Your task to perform on an android device: turn on the 12-hour format for clock Image 0: 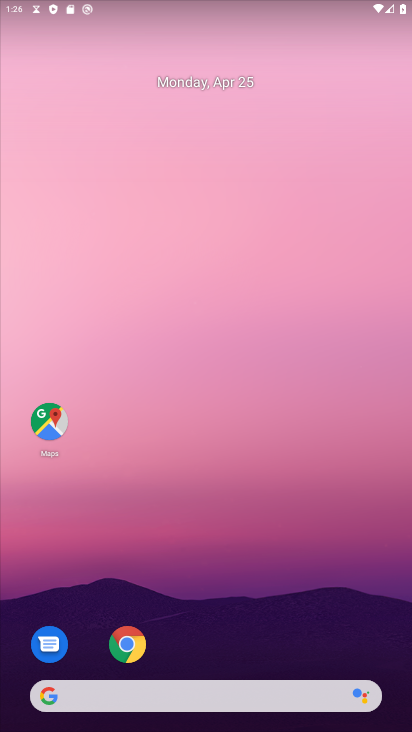
Step 0: drag from (346, 607) to (340, 32)
Your task to perform on an android device: turn on the 12-hour format for clock Image 1: 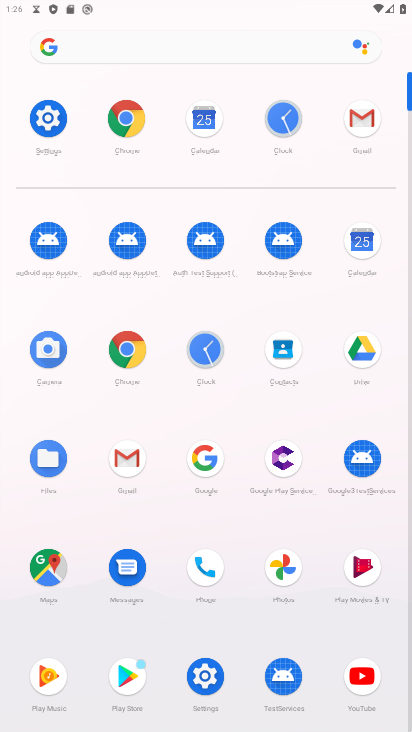
Step 1: click (278, 121)
Your task to perform on an android device: turn on the 12-hour format for clock Image 2: 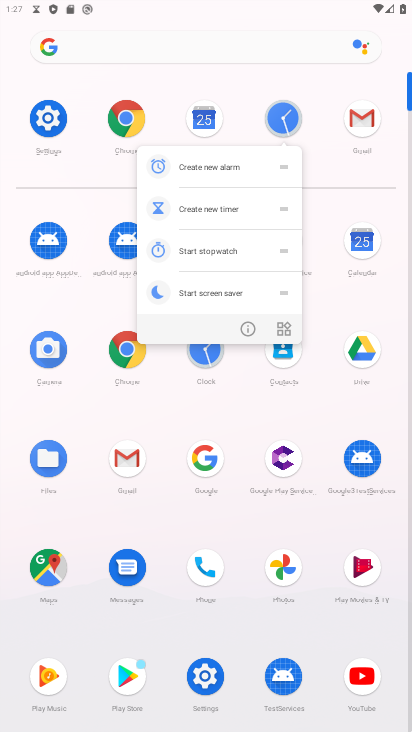
Step 2: click (275, 122)
Your task to perform on an android device: turn on the 12-hour format for clock Image 3: 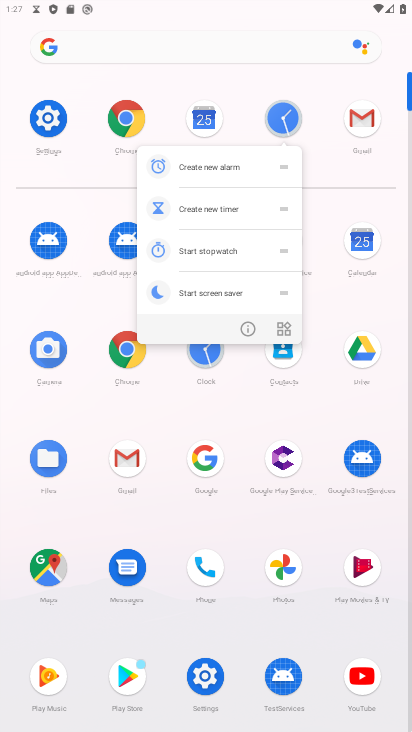
Step 3: click (285, 116)
Your task to perform on an android device: turn on the 12-hour format for clock Image 4: 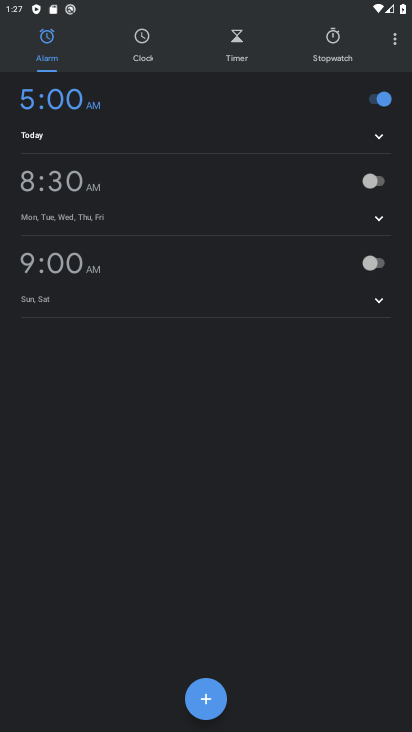
Step 4: click (397, 51)
Your task to perform on an android device: turn on the 12-hour format for clock Image 5: 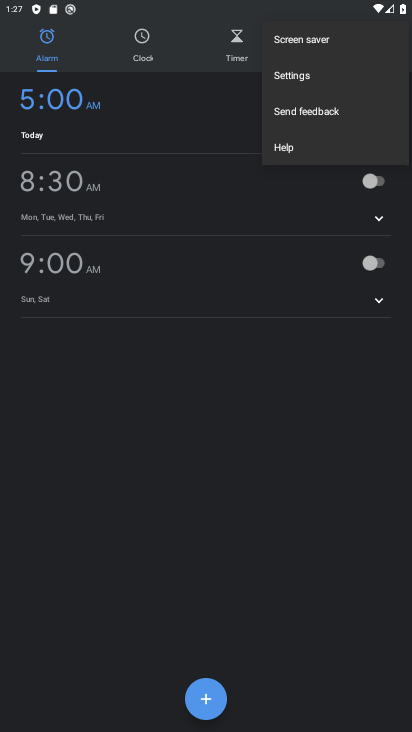
Step 5: click (294, 83)
Your task to perform on an android device: turn on the 12-hour format for clock Image 6: 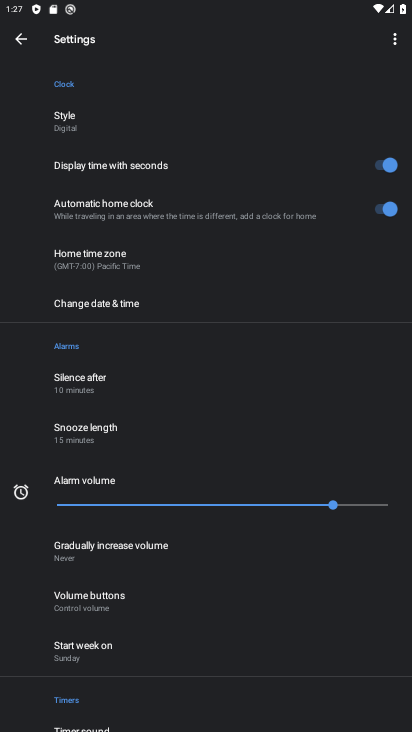
Step 6: click (104, 305)
Your task to perform on an android device: turn on the 12-hour format for clock Image 7: 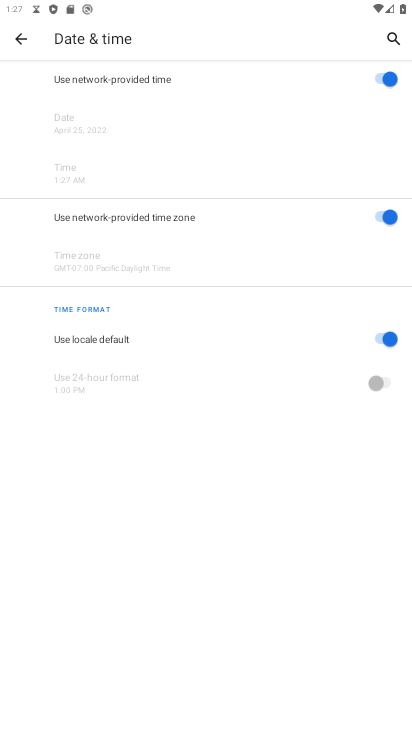
Step 7: task complete